Your task to perform on an android device: toggle airplane mode Image 0: 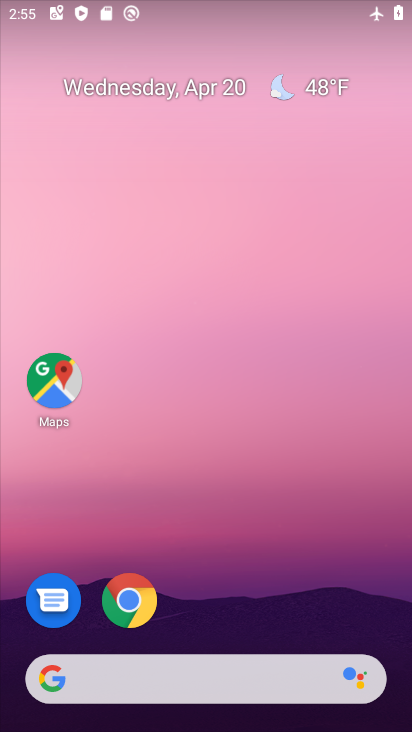
Step 0: drag from (337, 516) to (327, 150)
Your task to perform on an android device: toggle airplane mode Image 1: 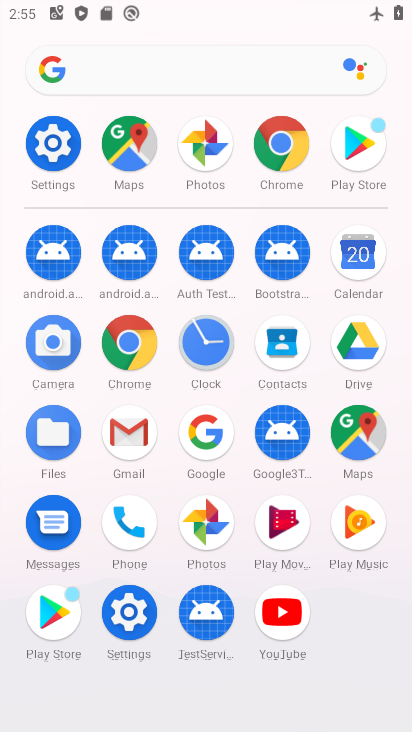
Step 1: click (64, 138)
Your task to perform on an android device: toggle airplane mode Image 2: 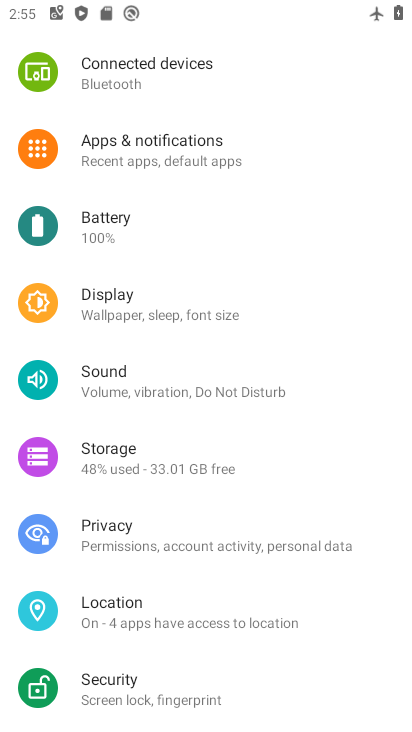
Step 2: drag from (139, 167) to (173, 509)
Your task to perform on an android device: toggle airplane mode Image 3: 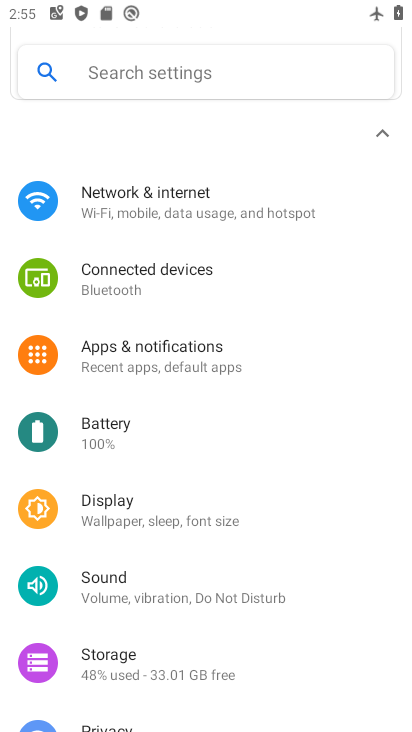
Step 3: drag from (196, 226) to (187, 500)
Your task to perform on an android device: toggle airplane mode Image 4: 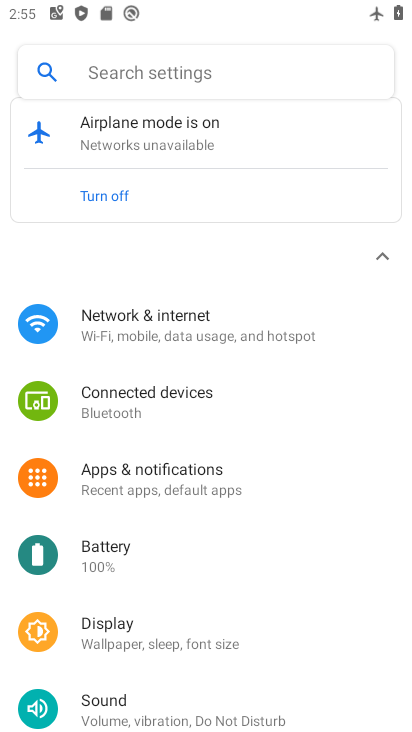
Step 4: drag from (217, 170) to (200, 508)
Your task to perform on an android device: toggle airplane mode Image 5: 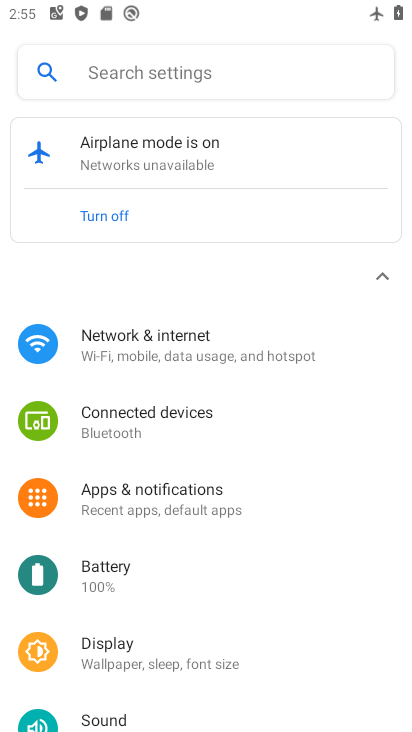
Step 5: click (151, 356)
Your task to perform on an android device: toggle airplane mode Image 6: 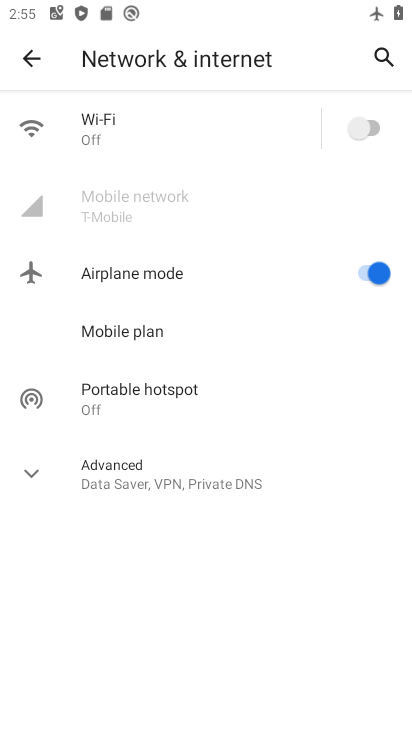
Step 6: click (367, 275)
Your task to perform on an android device: toggle airplane mode Image 7: 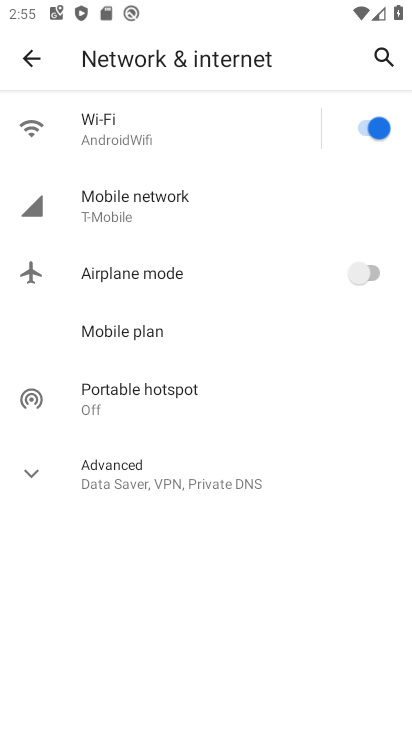
Step 7: task complete